Your task to perform on an android device: Clear all items from cart on costco.com. Add usb-c to usb-b to the cart on costco.com Image 0: 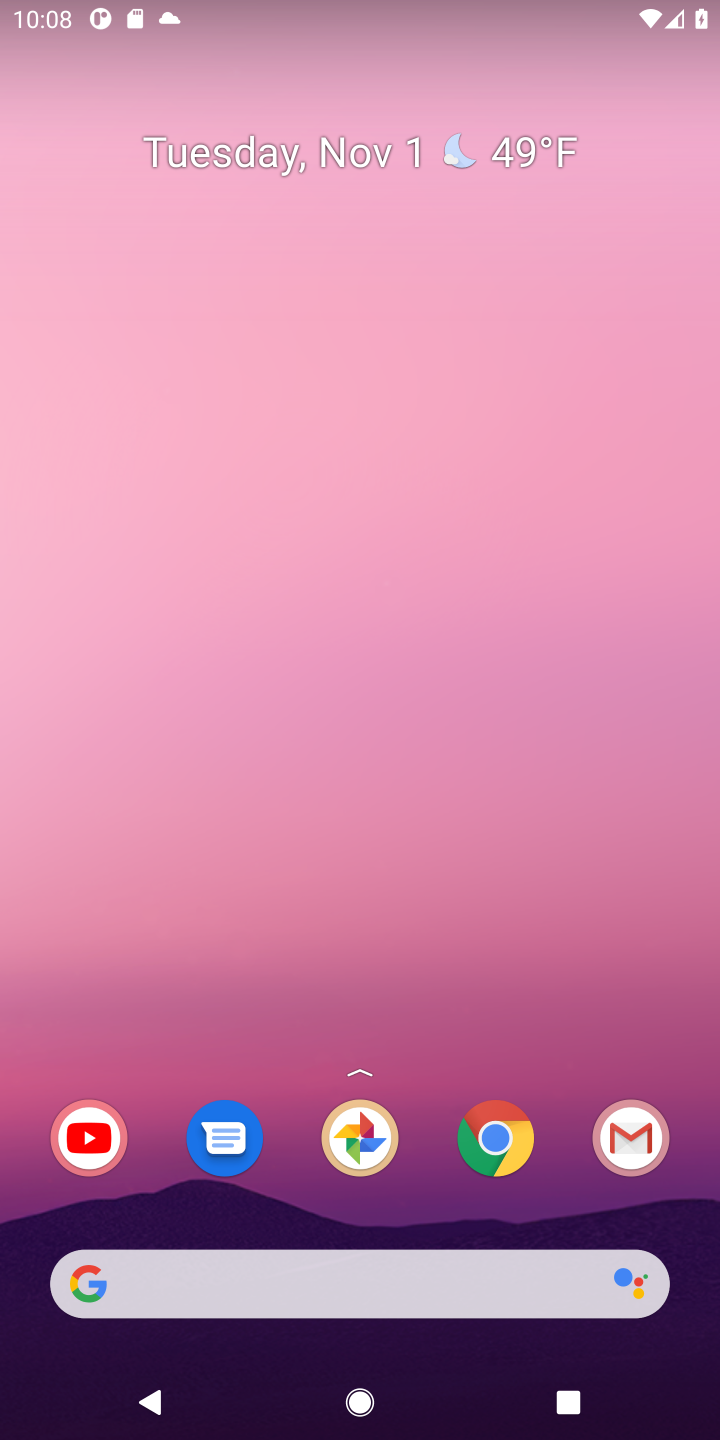
Step 0: click (503, 1140)
Your task to perform on an android device: Clear all items from cart on costco.com. Add usb-c to usb-b to the cart on costco.com Image 1: 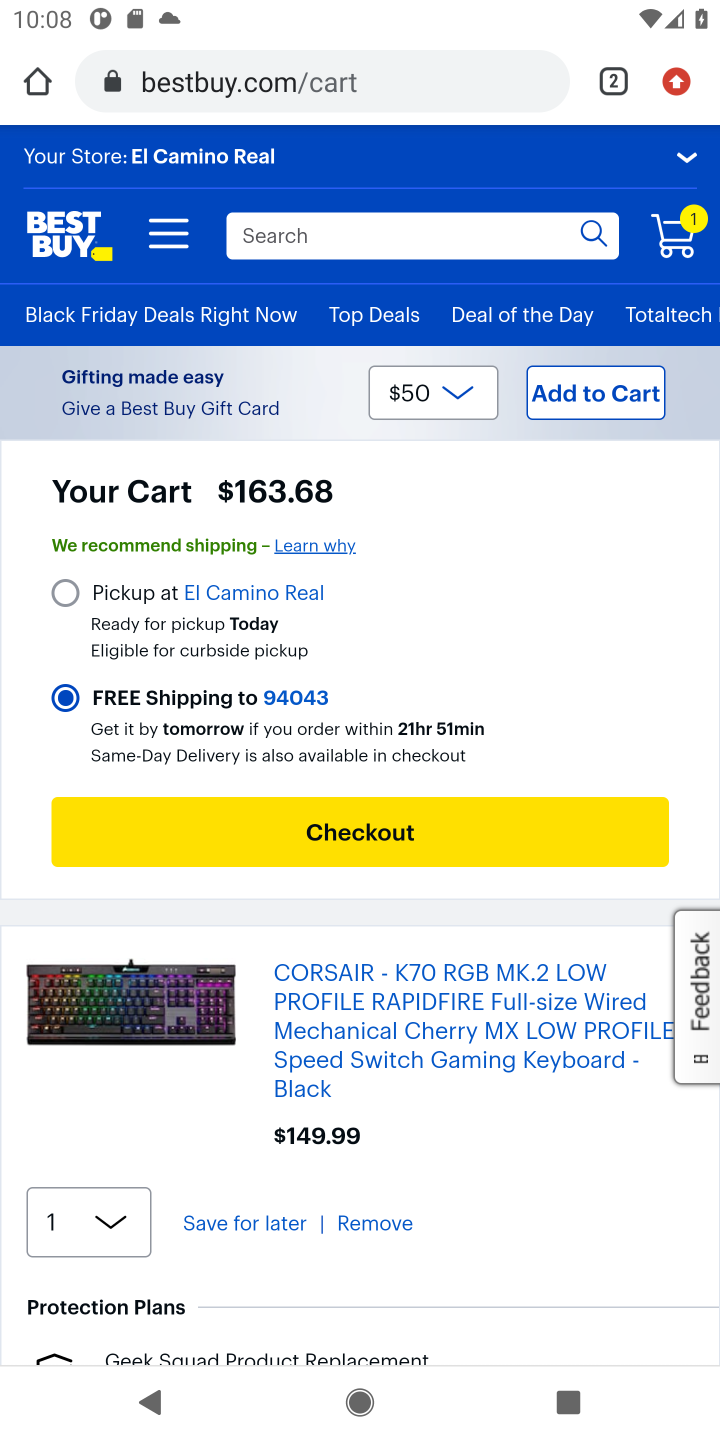
Step 1: click (280, 78)
Your task to perform on an android device: Clear all items from cart on costco.com. Add usb-c to usb-b to the cart on costco.com Image 2: 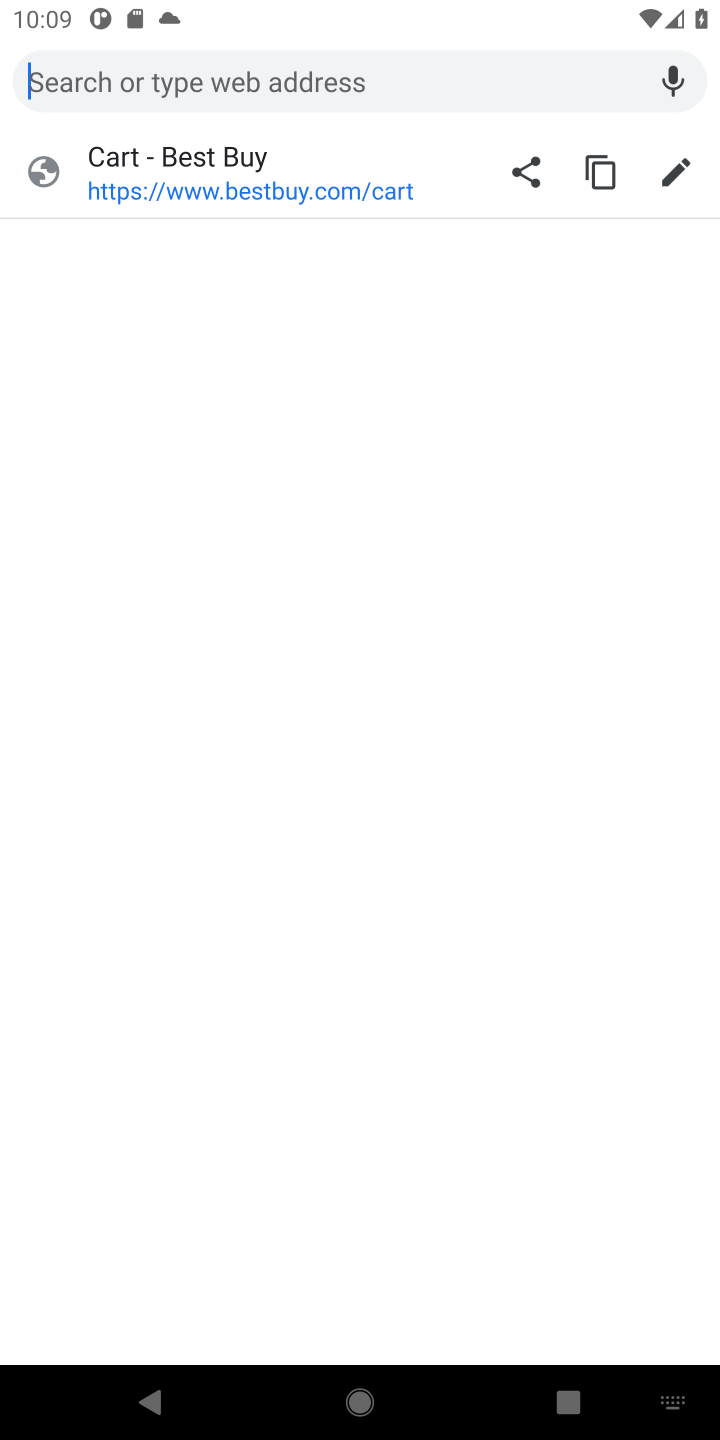
Step 2: type "costco.com"
Your task to perform on an android device: Clear all items from cart on costco.com. Add usb-c to usb-b to the cart on costco.com Image 3: 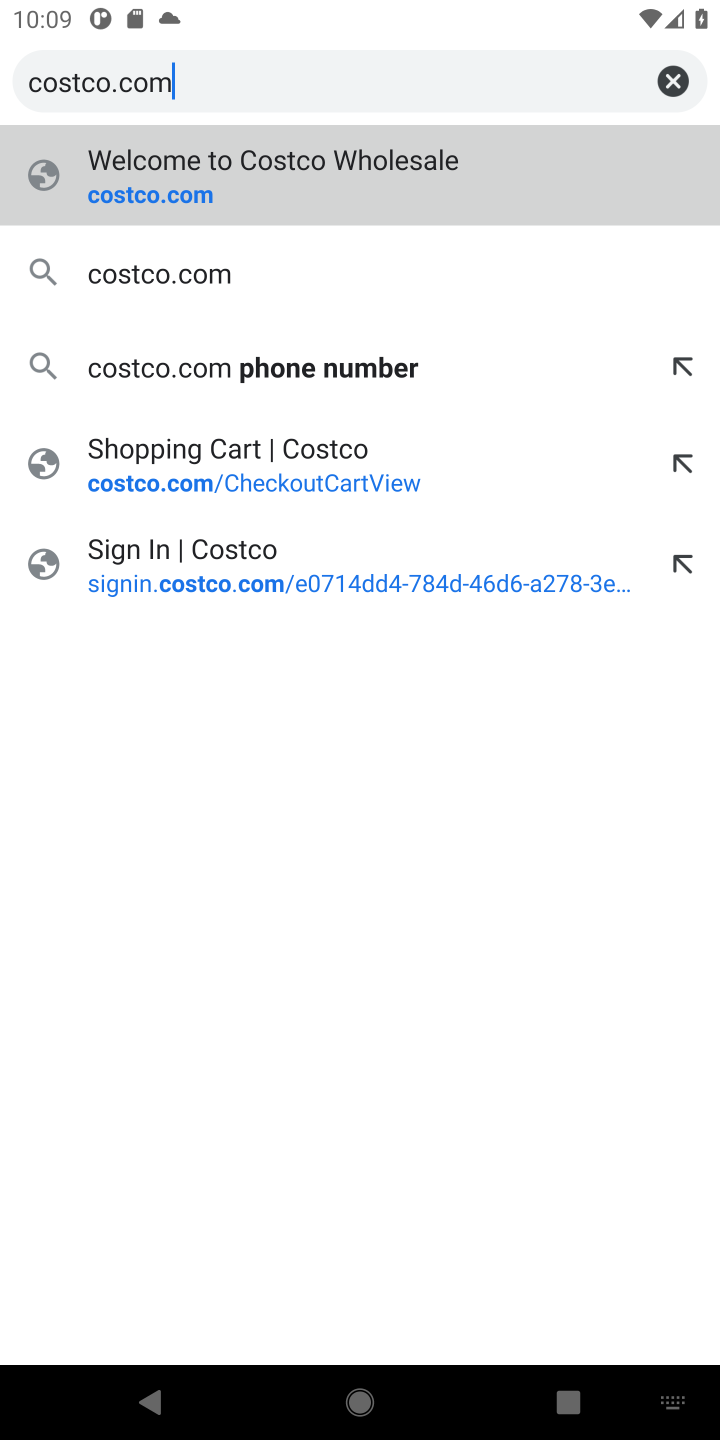
Step 3: click (190, 268)
Your task to perform on an android device: Clear all items from cart on costco.com. Add usb-c to usb-b to the cart on costco.com Image 4: 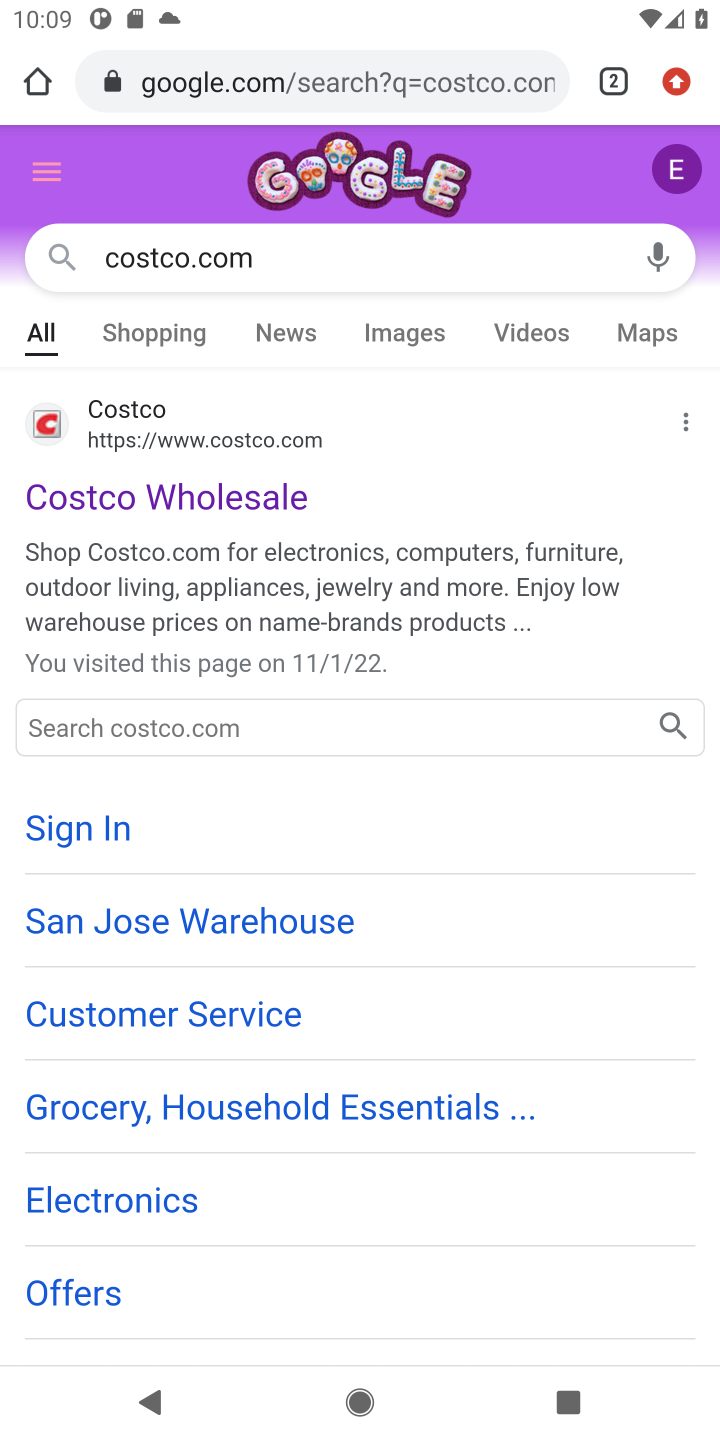
Step 4: click (224, 501)
Your task to perform on an android device: Clear all items from cart on costco.com. Add usb-c to usb-b to the cart on costco.com Image 5: 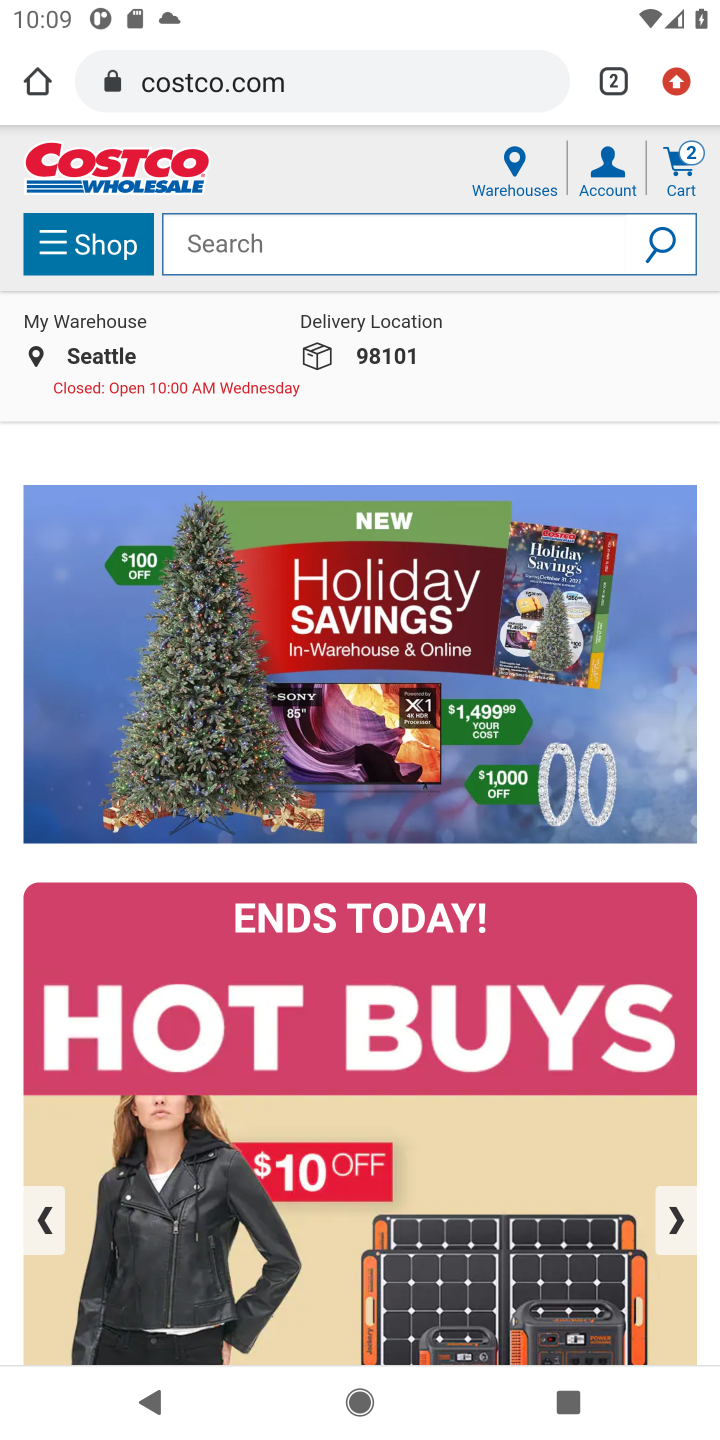
Step 5: click (683, 166)
Your task to perform on an android device: Clear all items from cart on costco.com. Add usb-c to usb-b to the cart on costco.com Image 6: 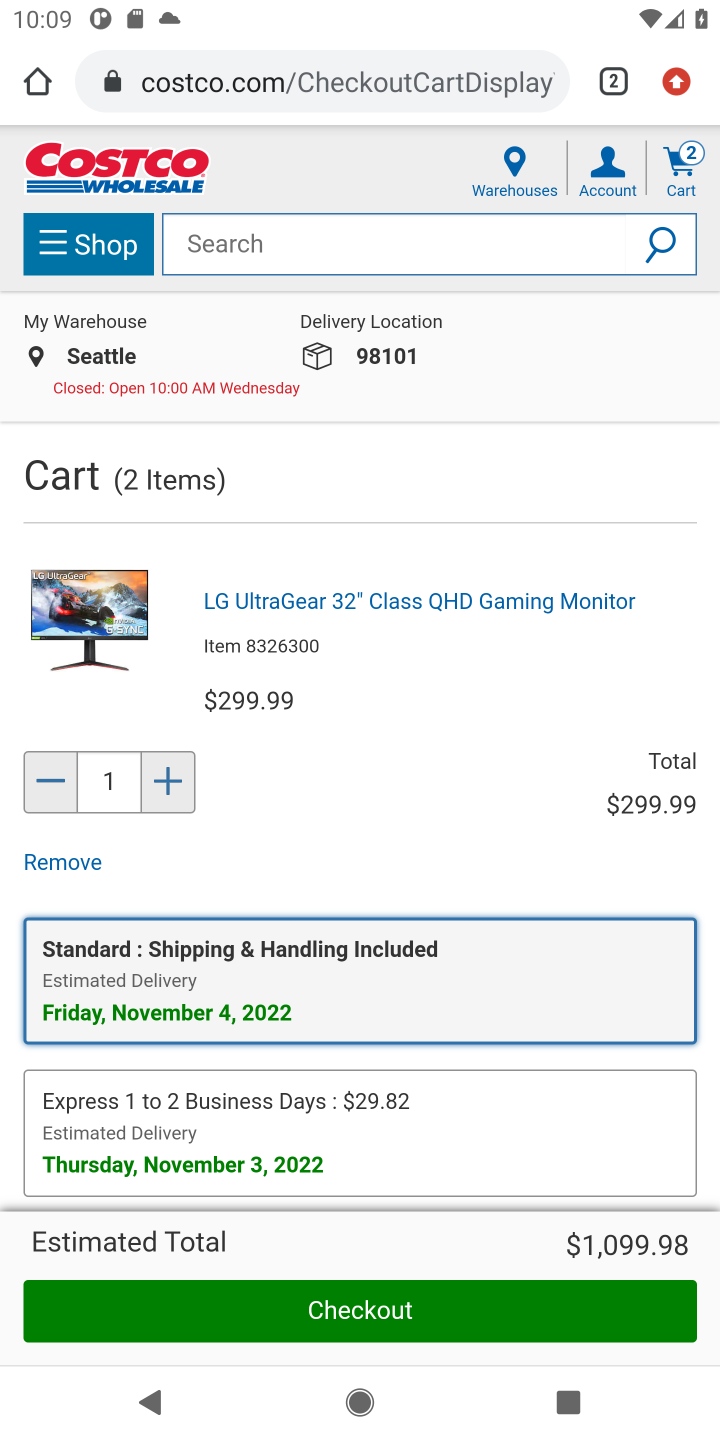
Step 6: drag from (544, 1138) to (552, 658)
Your task to perform on an android device: Clear all items from cart on costco.com. Add usb-c to usb-b to the cart on costco.com Image 7: 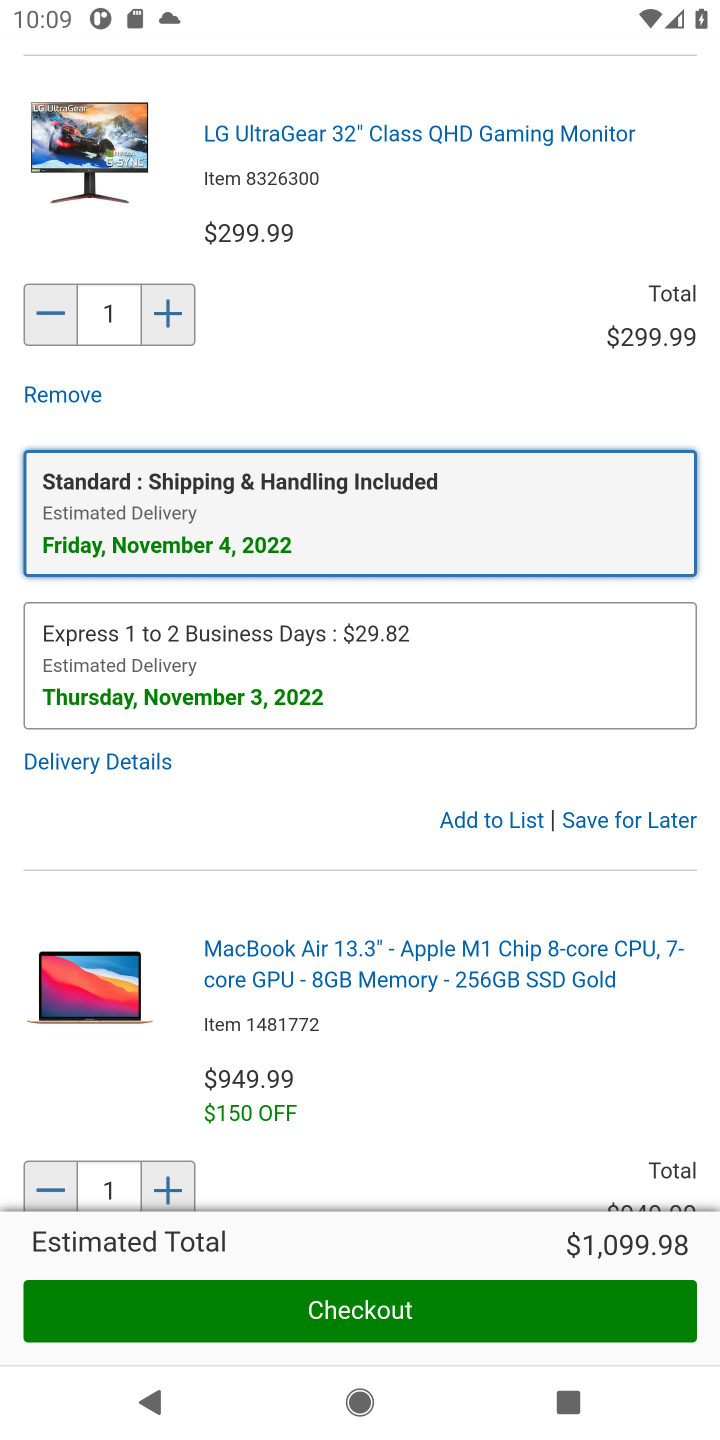
Step 7: click (628, 824)
Your task to perform on an android device: Clear all items from cart on costco.com. Add usb-c to usb-b to the cart on costco.com Image 8: 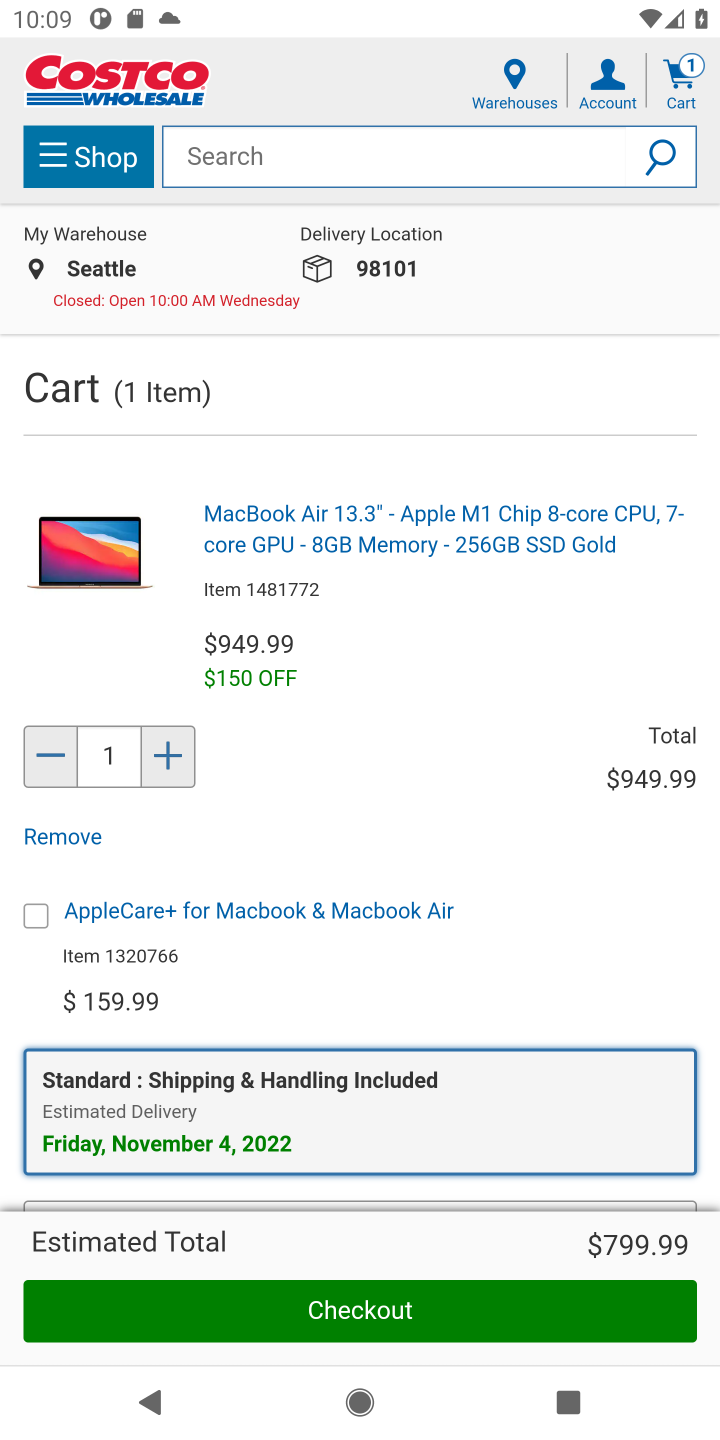
Step 8: drag from (533, 1095) to (494, 552)
Your task to perform on an android device: Clear all items from cart on costco.com. Add usb-c to usb-b to the cart on costco.com Image 9: 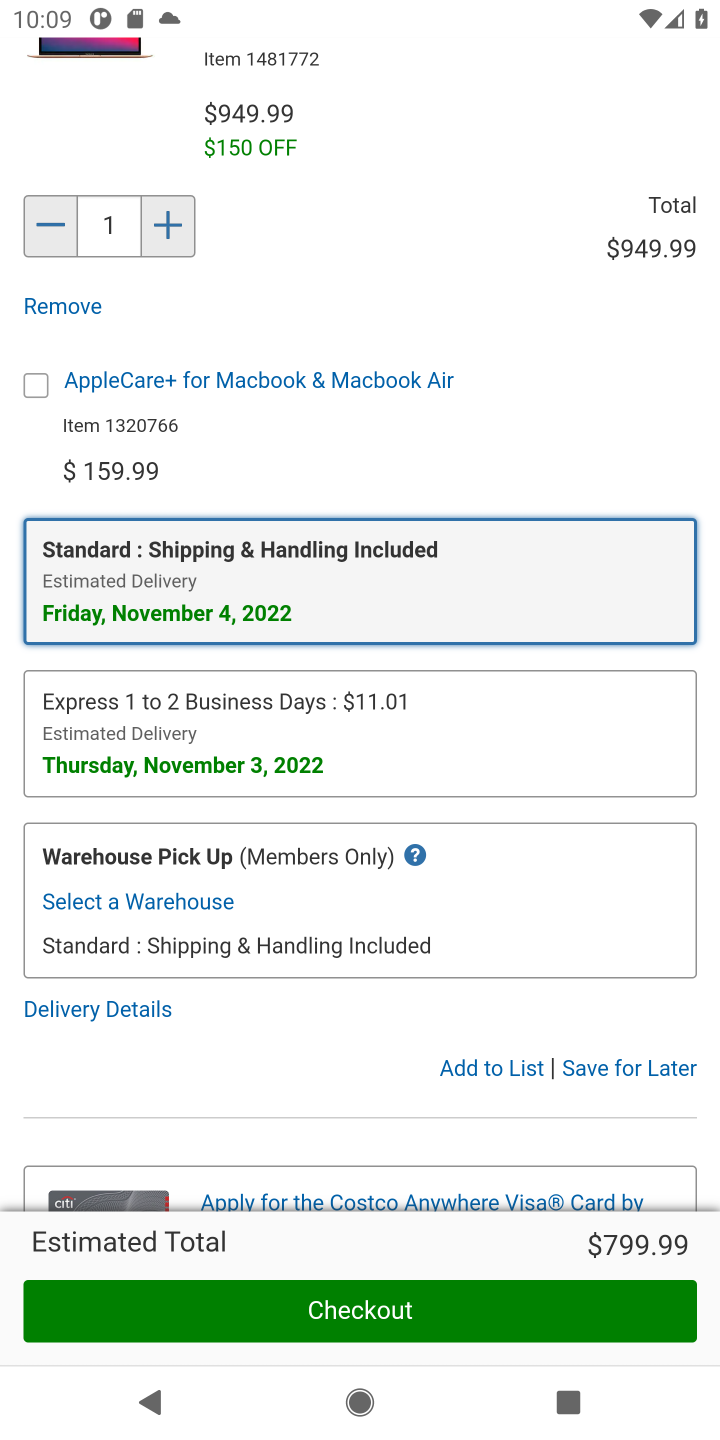
Step 9: click (646, 1071)
Your task to perform on an android device: Clear all items from cart on costco.com. Add usb-c to usb-b to the cart on costco.com Image 10: 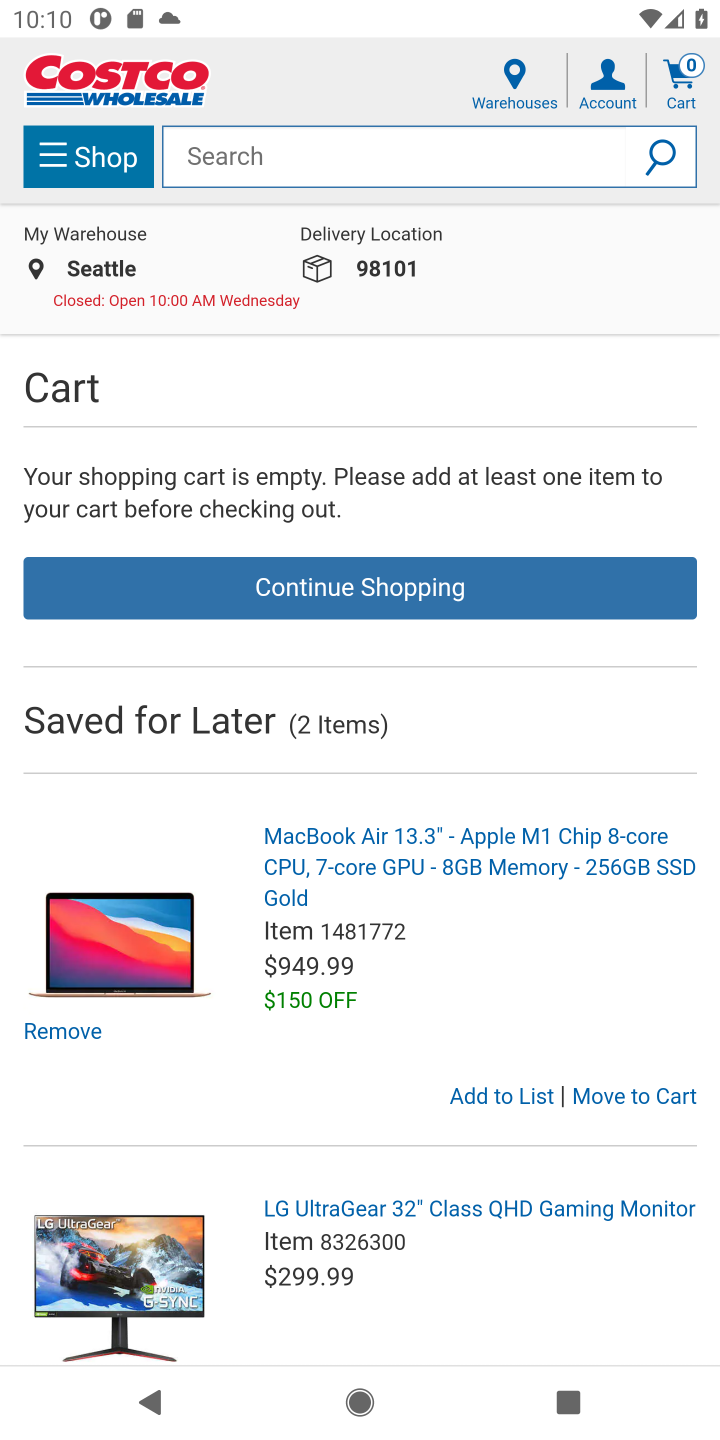
Step 10: click (361, 159)
Your task to perform on an android device: Clear all items from cart on costco.com. Add usb-c to usb-b to the cart on costco.com Image 11: 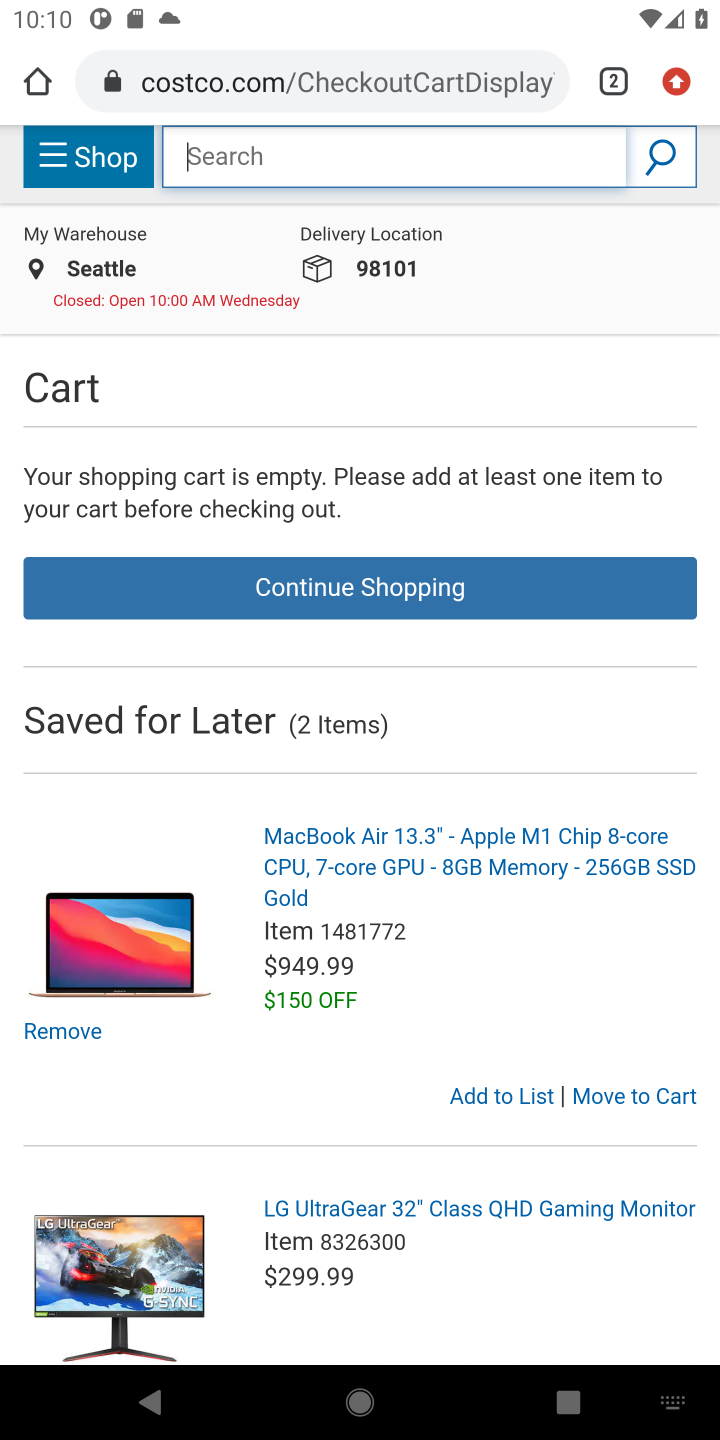
Step 11: type "usb-c to usb-b"
Your task to perform on an android device: Clear all items from cart on costco.com. Add usb-c to usb-b to the cart on costco.com Image 12: 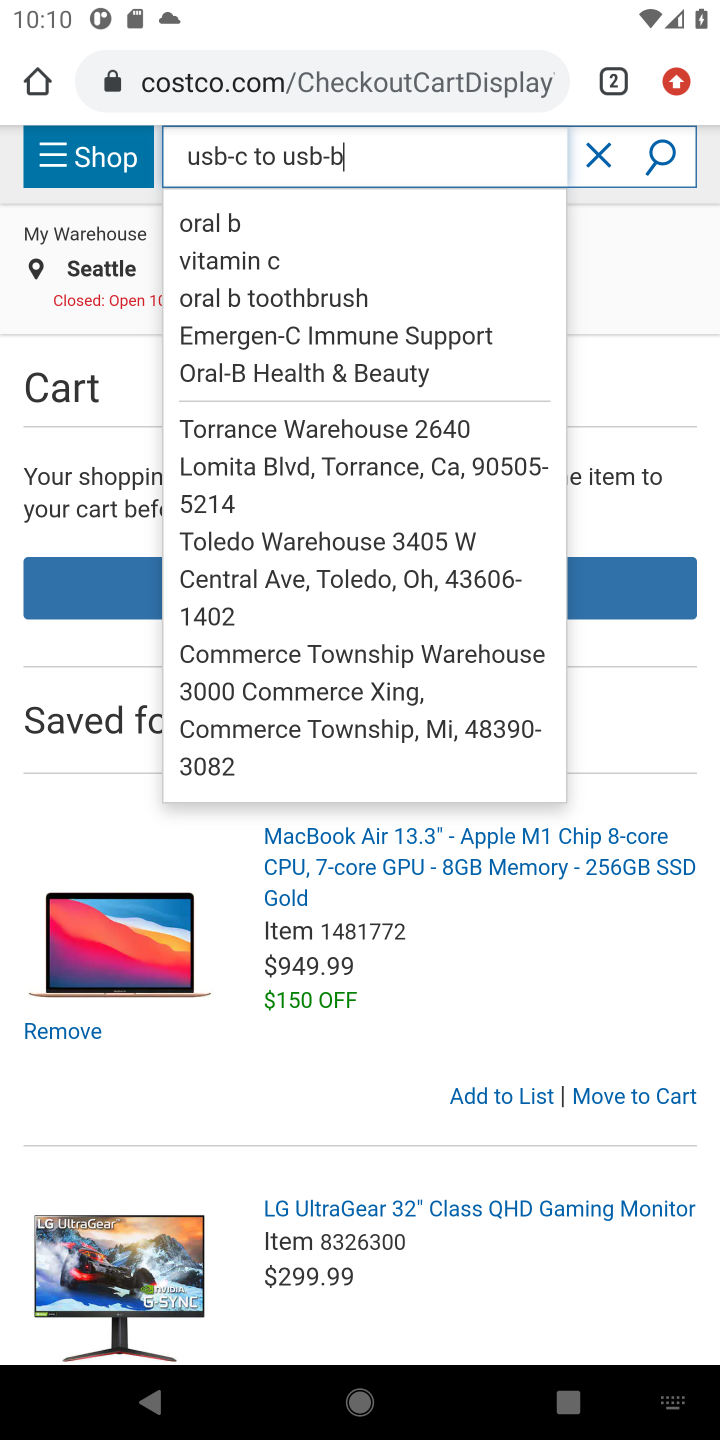
Step 12: click (668, 150)
Your task to perform on an android device: Clear all items from cart on costco.com. Add usb-c to usb-b to the cart on costco.com Image 13: 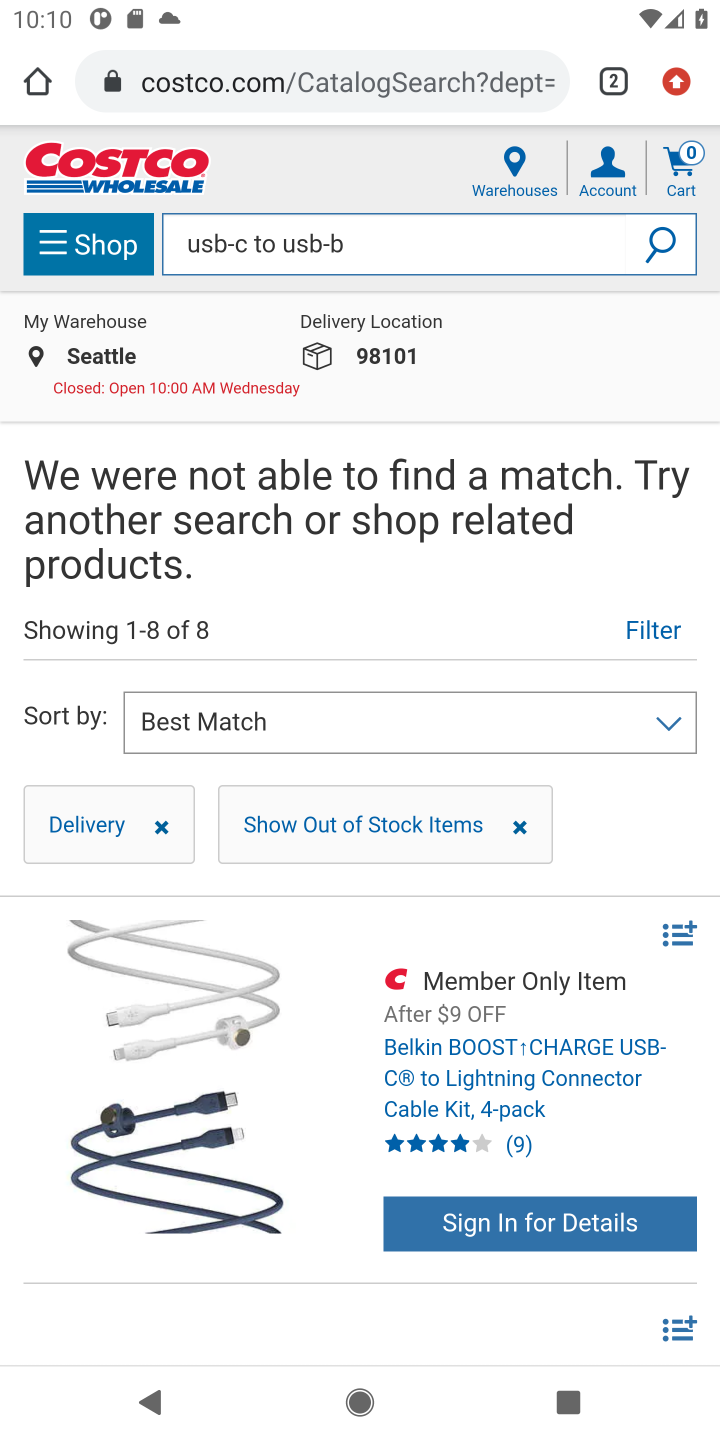
Step 13: task complete